Your task to perform on an android device: Open Google Chrome and click the shortcut for Amazon.com Image 0: 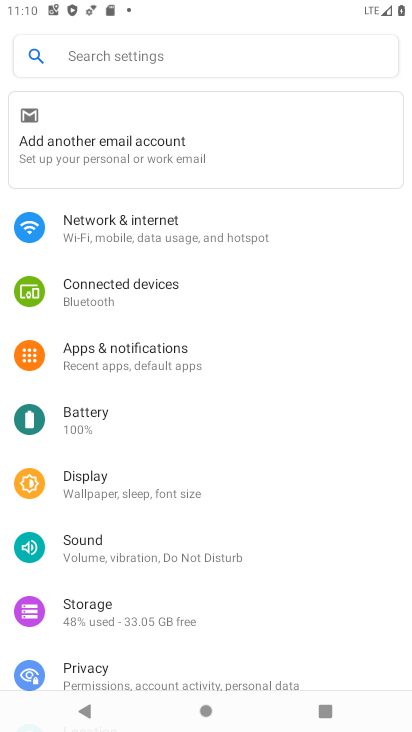
Step 0: press home button
Your task to perform on an android device: Open Google Chrome and click the shortcut for Amazon.com Image 1: 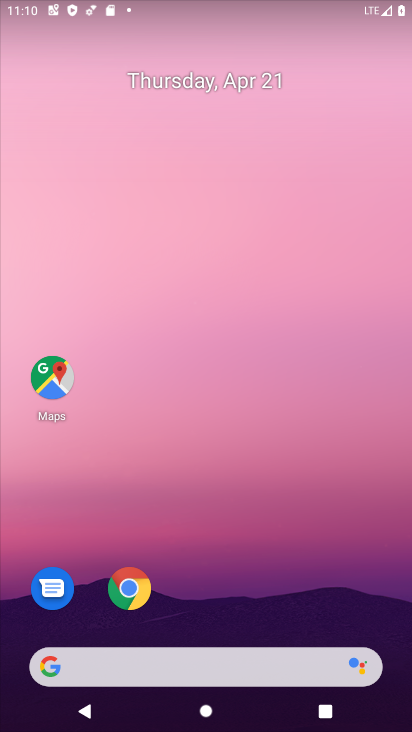
Step 1: drag from (285, 696) to (266, 174)
Your task to perform on an android device: Open Google Chrome and click the shortcut for Amazon.com Image 2: 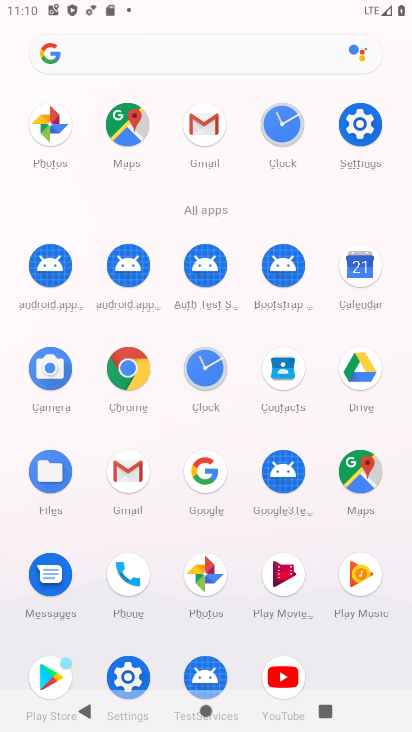
Step 2: click (115, 360)
Your task to perform on an android device: Open Google Chrome and click the shortcut for Amazon.com Image 3: 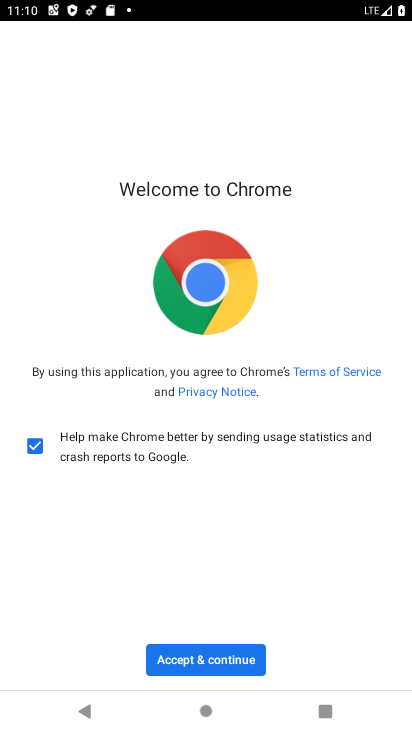
Step 3: click (185, 645)
Your task to perform on an android device: Open Google Chrome and click the shortcut for Amazon.com Image 4: 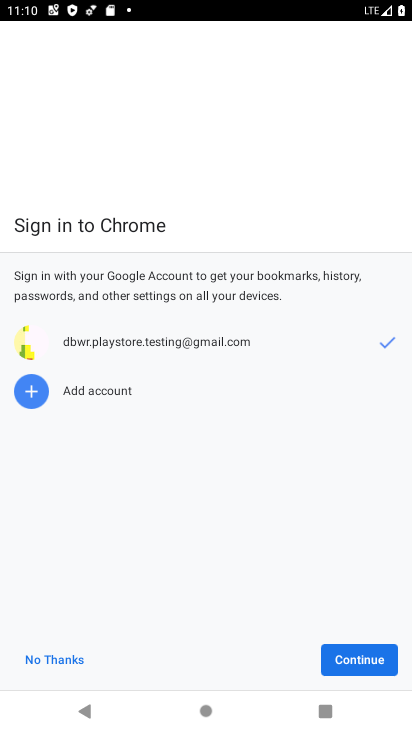
Step 4: click (342, 637)
Your task to perform on an android device: Open Google Chrome and click the shortcut for Amazon.com Image 5: 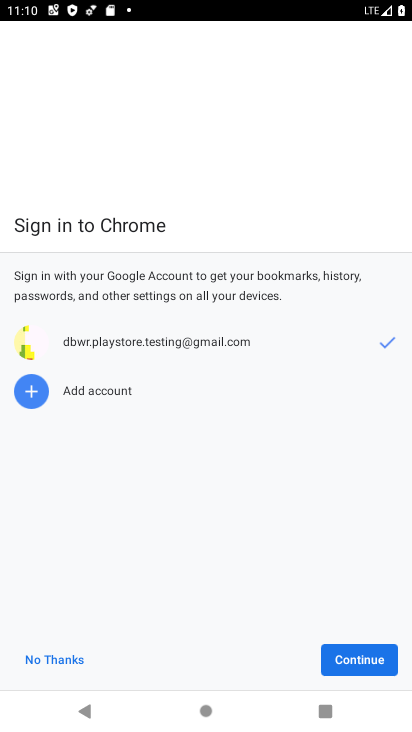
Step 5: click (362, 659)
Your task to perform on an android device: Open Google Chrome and click the shortcut for Amazon.com Image 6: 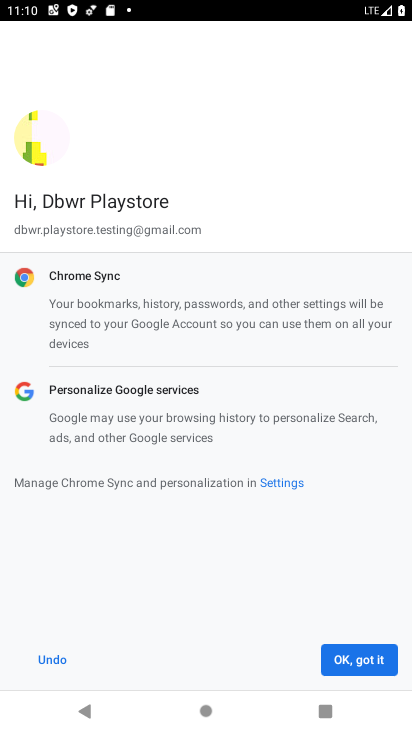
Step 6: click (362, 659)
Your task to perform on an android device: Open Google Chrome and click the shortcut for Amazon.com Image 7: 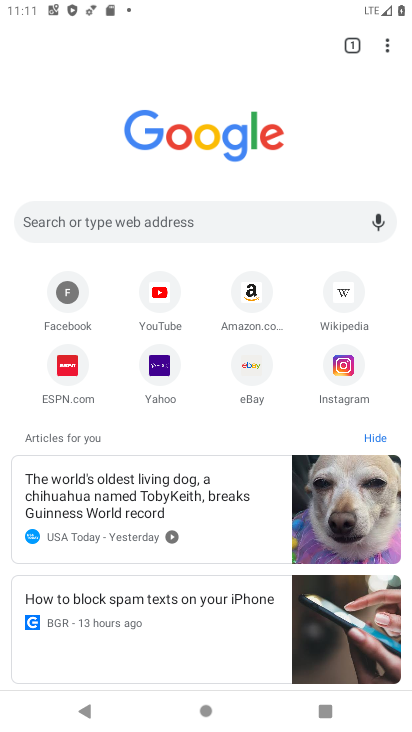
Step 7: click (245, 288)
Your task to perform on an android device: Open Google Chrome and click the shortcut for Amazon.com Image 8: 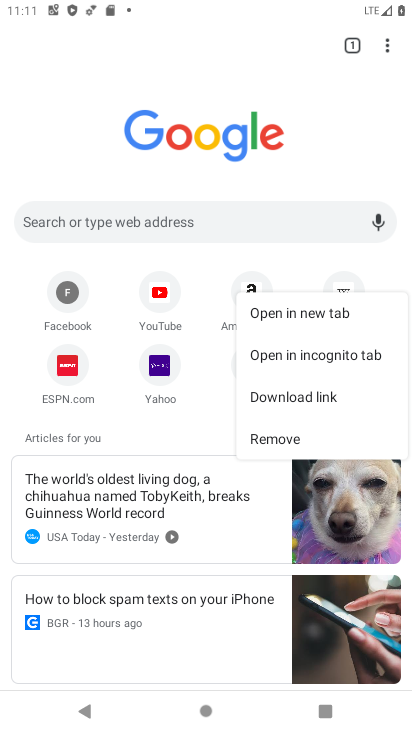
Step 8: click (235, 279)
Your task to perform on an android device: Open Google Chrome and click the shortcut for Amazon.com Image 9: 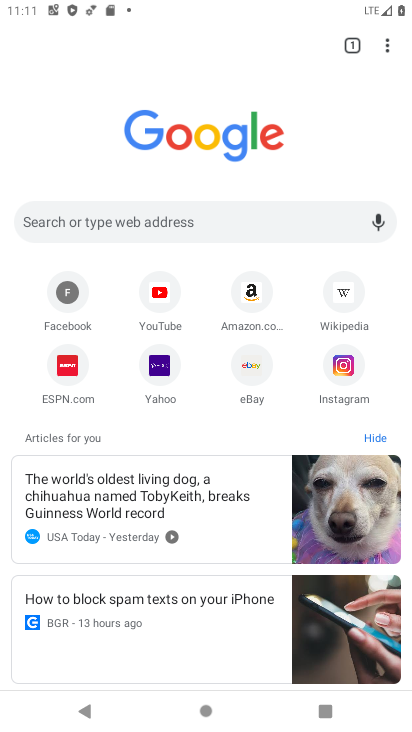
Step 9: click (254, 311)
Your task to perform on an android device: Open Google Chrome and click the shortcut for Amazon.com Image 10: 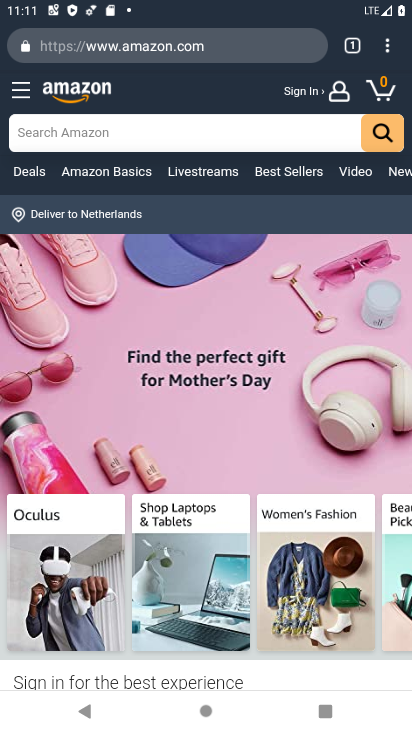
Step 10: task complete